Your task to perform on an android device: change keyboard looks Image 0: 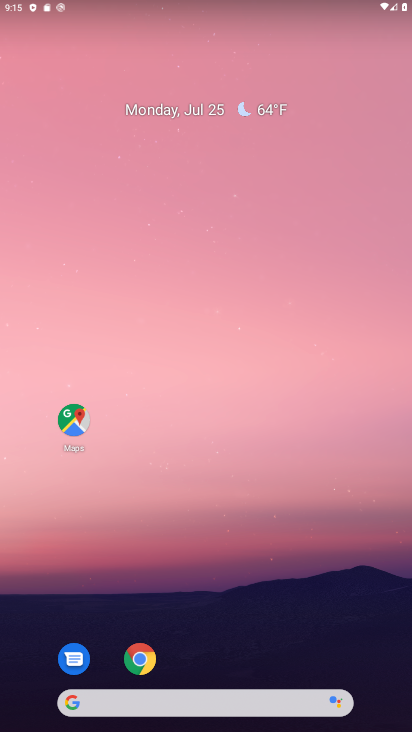
Step 0: press home button
Your task to perform on an android device: change keyboard looks Image 1: 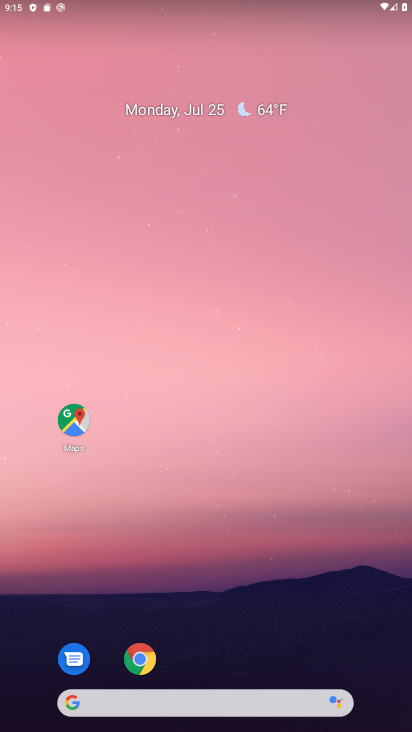
Step 1: drag from (331, 640) to (369, 48)
Your task to perform on an android device: change keyboard looks Image 2: 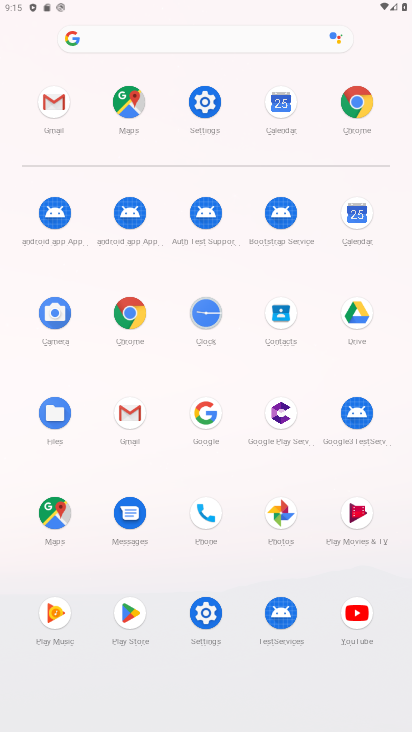
Step 2: click (209, 112)
Your task to perform on an android device: change keyboard looks Image 3: 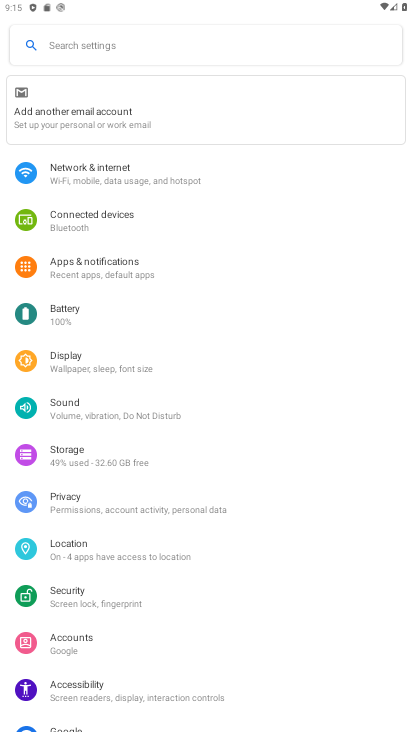
Step 3: drag from (302, 418) to (302, 340)
Your task to perform on an android device: change keyboard looks Image 4: 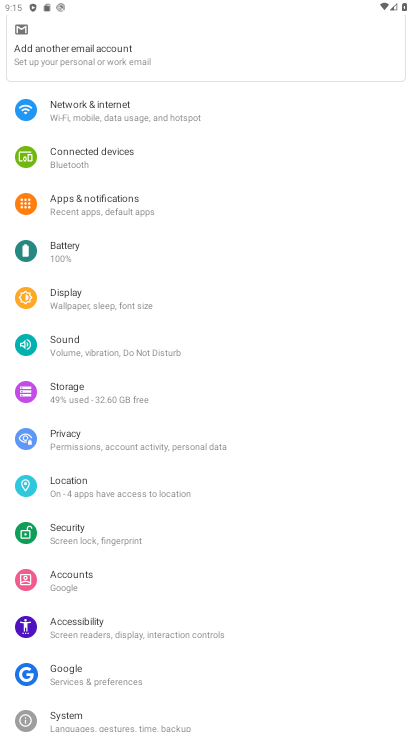
Step 4: drag from (322, 521) to (327, 375)
Your task to perform on an android device: change keyboard looks Image 5: 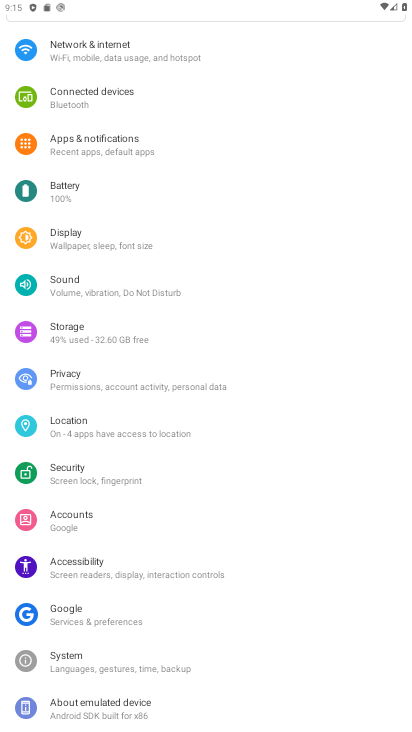
Step 5: click (232, 658)
Your task to perform on an android device: change keyboard looks Image 6: 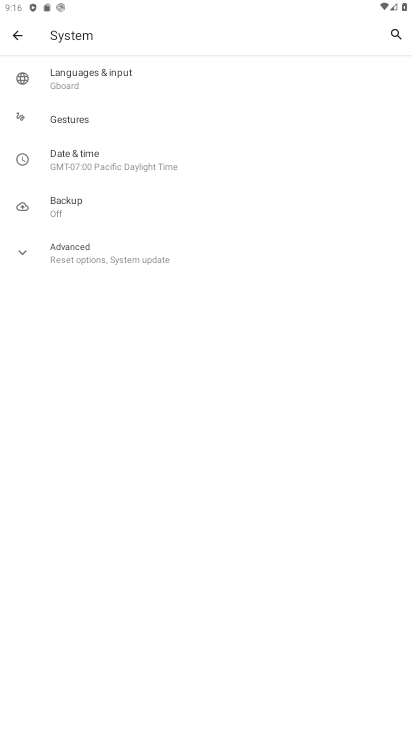
Step 6: click (145, 252)
Your task to perform on an android device: change keyboard looks Image 7: 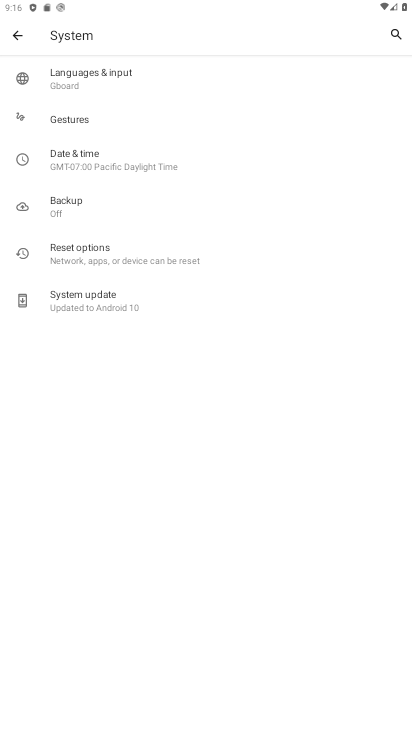
Step 7: click (91, 82)
Your task to perform on an android device: change keyboard looks Image 8: 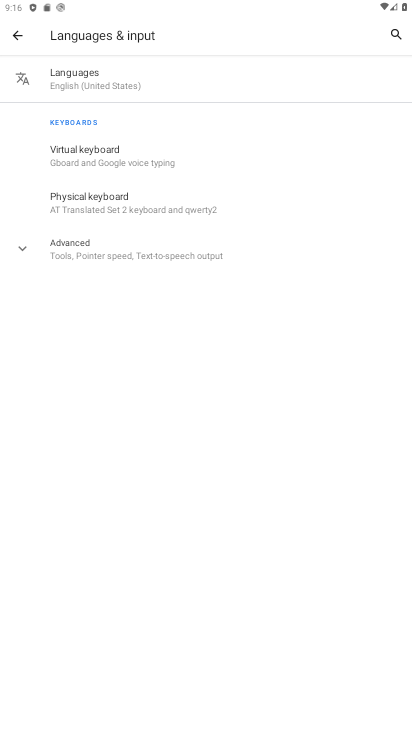
Step 8: click (102, 157)
Your task to perform on an android device: change keyboard looks Image 9: 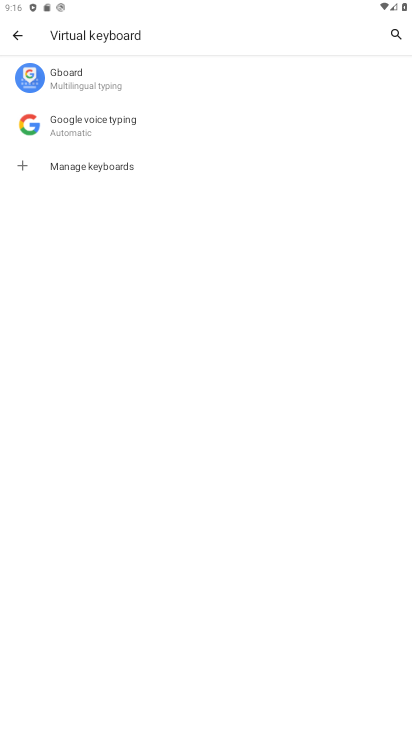
Step 9: click (100, 69)
Your task to perform on an android device: change keyboard looks Image 10: 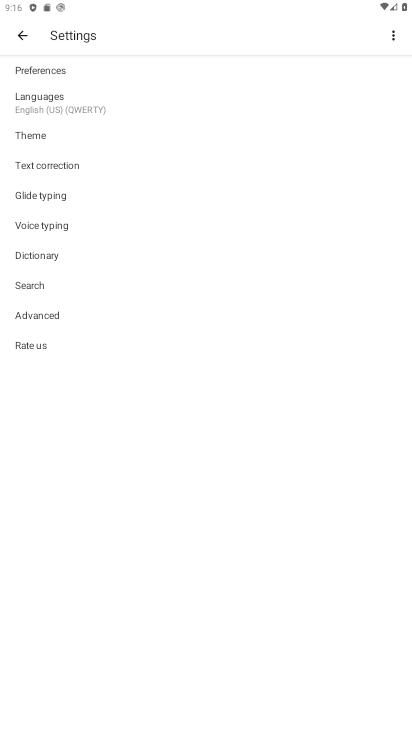
Step 10: click (43, 139)
Your task to perform on an android device: change keyboard looks Image 11: 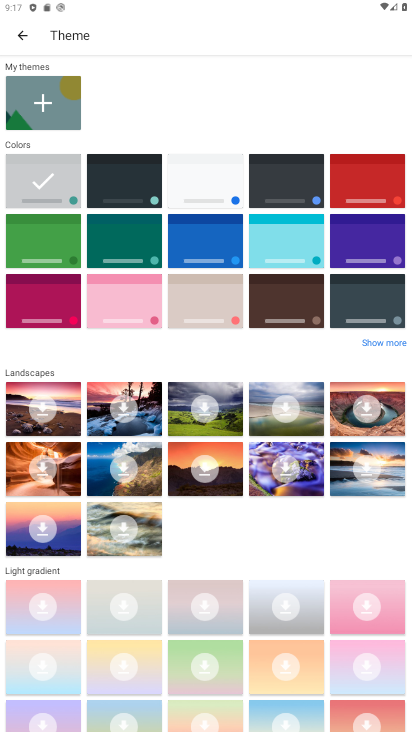
Step 11: click (200, 244)
Your task to perform on an android device: change keyboard looks Image 12: 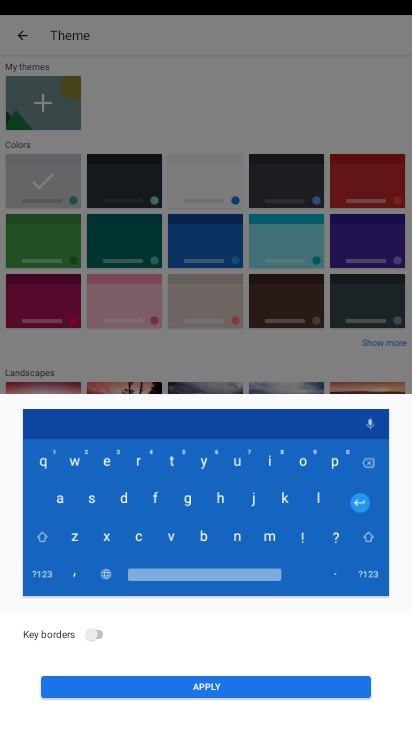
Step 12: click (311, 686)
Your task to perform on an android device: change keyboard looks Image 13: 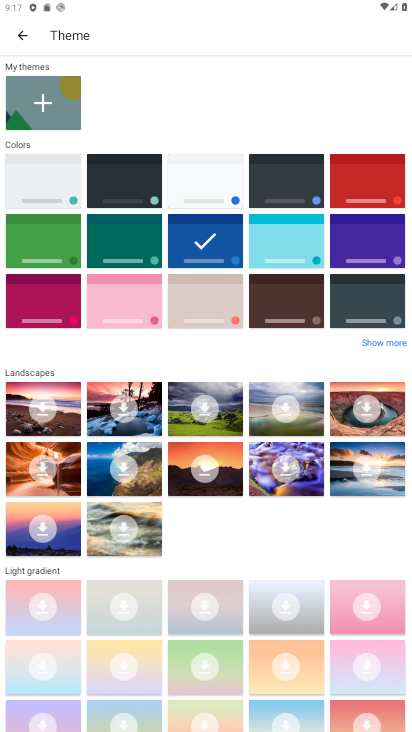
Step 13: task complete